Your task to perform on an android device: turn pop-ups off in chrome Image 0: 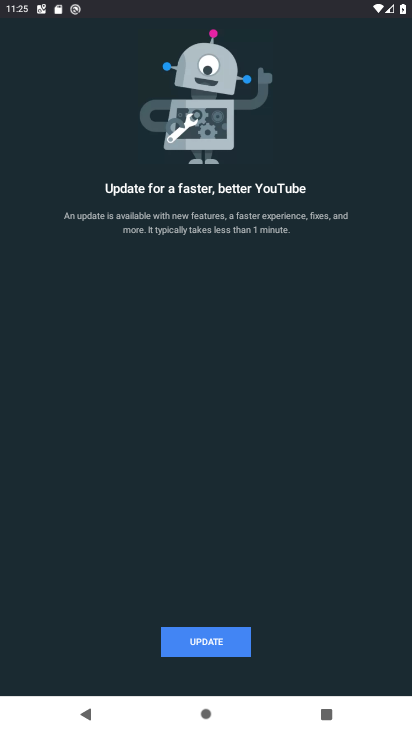
Step 0: press home button
Your task to perform on an android device: turn pop-ups off in chrome Image 1: 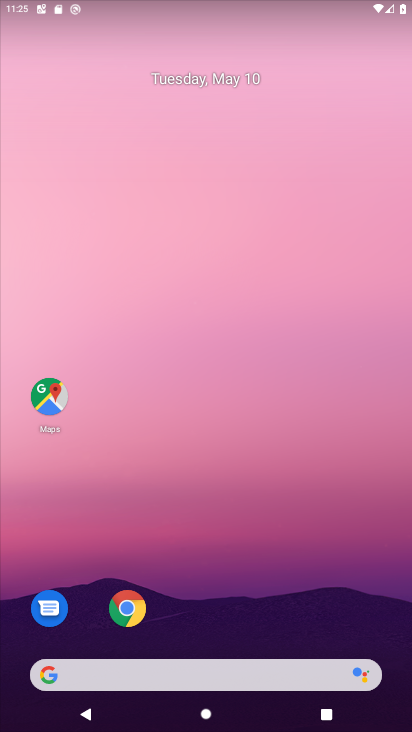
Step 1: click (122, 606)
Your task to perform on an android device: turn pop-ups off in chrome Image 2: 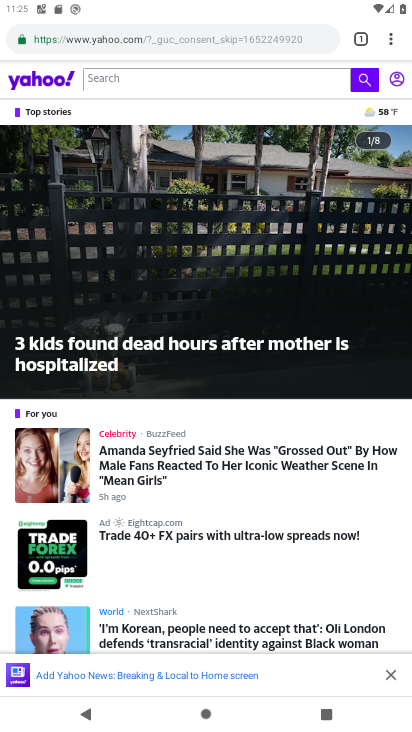
Step 2: drag from (386, 41) to (263, 519)
Your task to perform on an android device: turn pop-ups off in chrome Image 3: 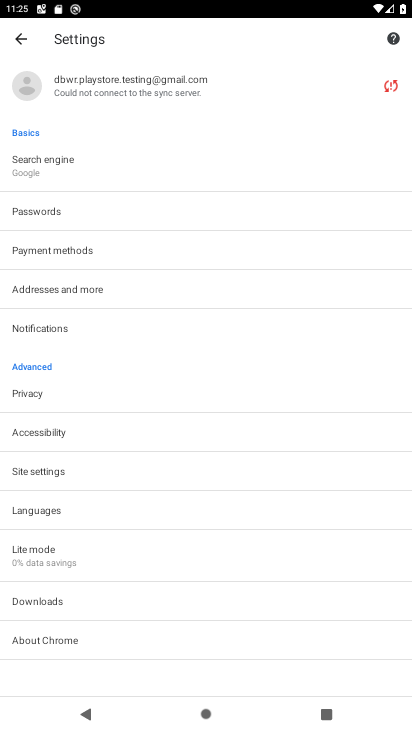
Step 3: click (73, 466)
Your task to perform on an android device: turn pop-ups off in chrome Image 4: 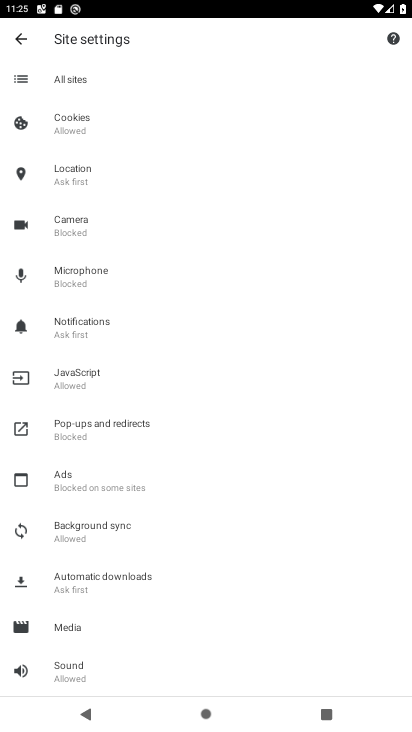
Step 4: click (139, 423)
Your task to perform on an android device: turn pop-ups off in chrome Image 5: 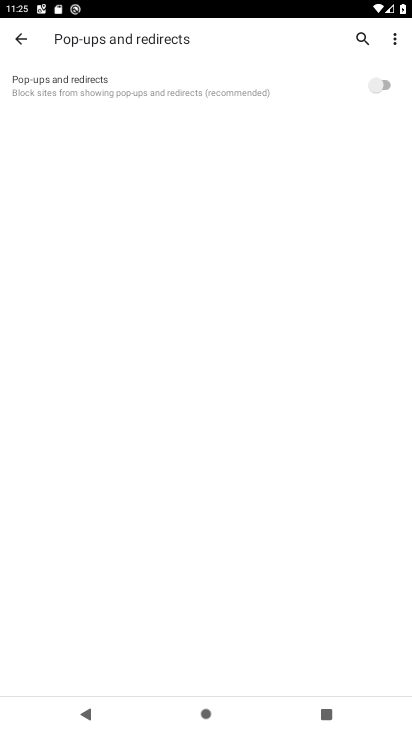
Step 5: task complete